Your task to perform on an android device: turn on translation in the chrome app Image 0: 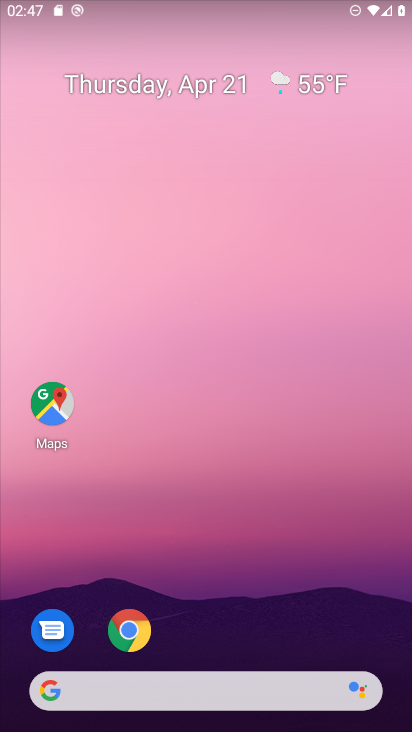
Step 0: click (150, 636)
Your task to perform on an android device: turn on translation in the chrome app Image 1: 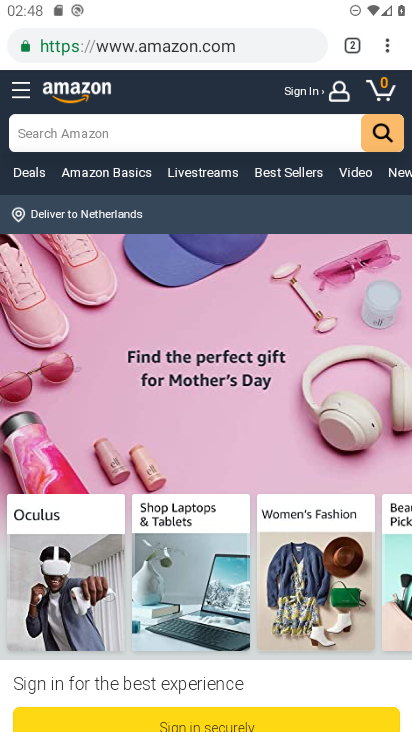
Step 1: click (388, 59)
Your task to perform on an android device: turn on translation in the chrome app Image 2: 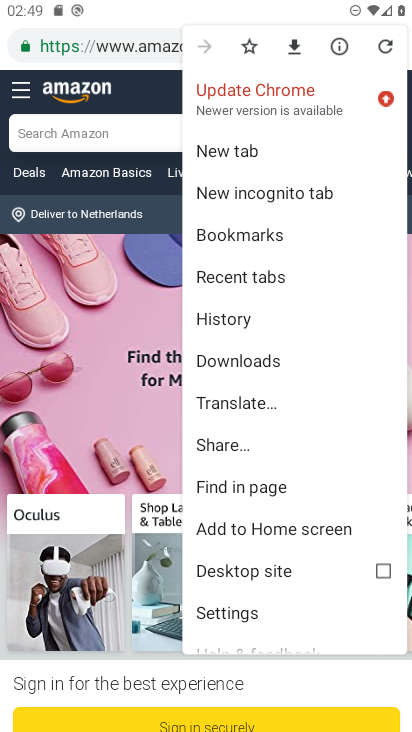
Step 2: click (263, 600)
Your task to perform on an android device: turn on translation in the chrome app Image 3: 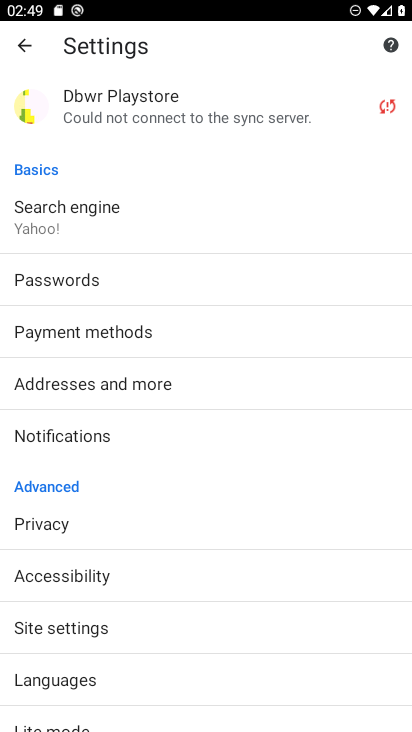
Step 3: click (263, 600)
Your task to perform on an android device: turn on translation in the chrome app Image 4: 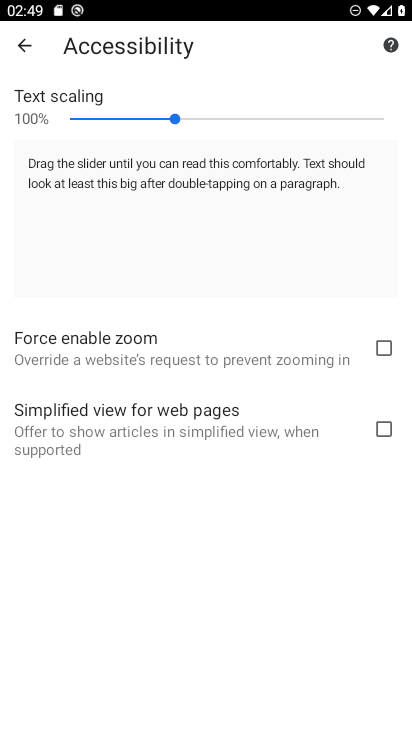
Step 4: click (20, 50)
Your task to perform on an android device: turn on translation in the chrome app Image 5: 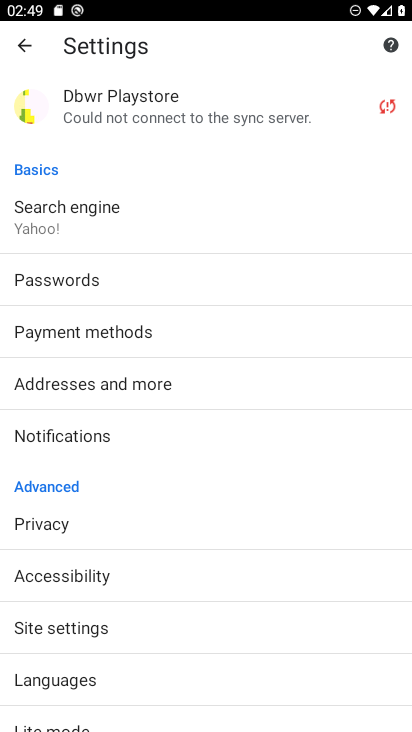
Step 5: drag from (162, 668) to (269, 301)
Your task to perform on an android device: turn on translation in the chrome app Image 6: 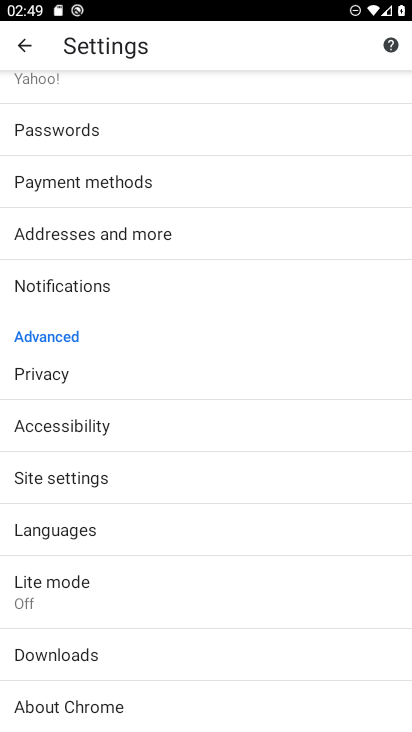
Step 6: click (191, 533)
Your task to perform on an android device: turn on translation in the chrome app Image 7: 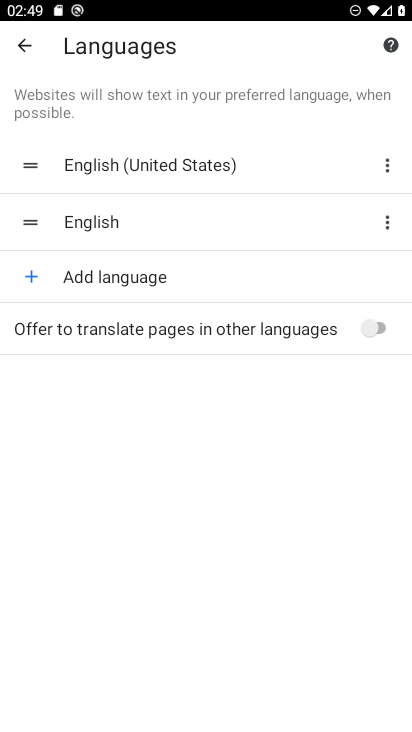
Step 7: click (212, 318)
Your task to perform on an android device: turn on translation in the chrome app Image 8: 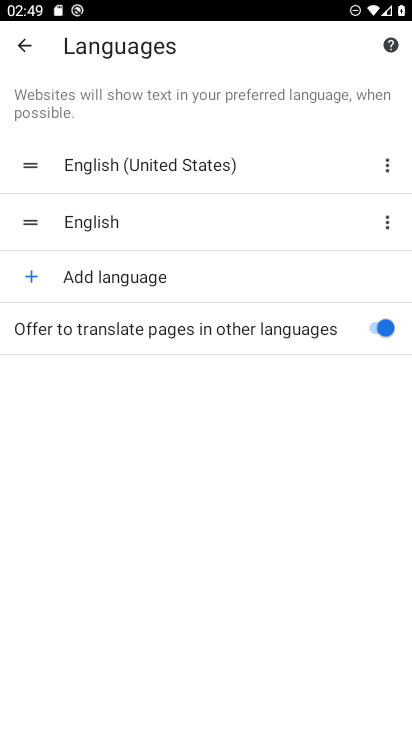
Step 8: task complete